Your task to perform on an android device: Show me popular videos on Youtube Image 0: 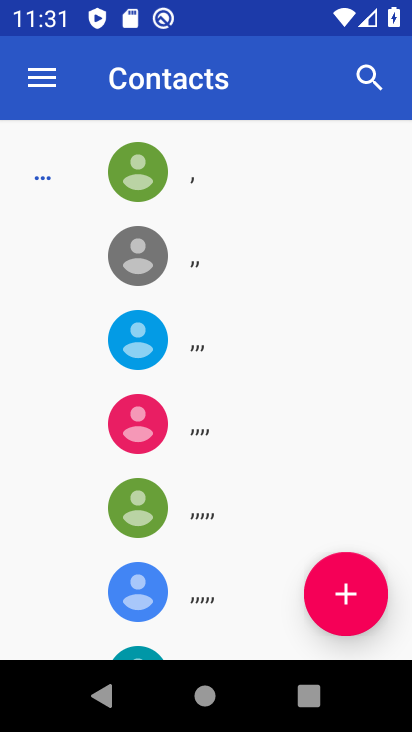
Step 0: press home button
Your task to perform on an android device: Show me popular videos on Youtube Image 1: 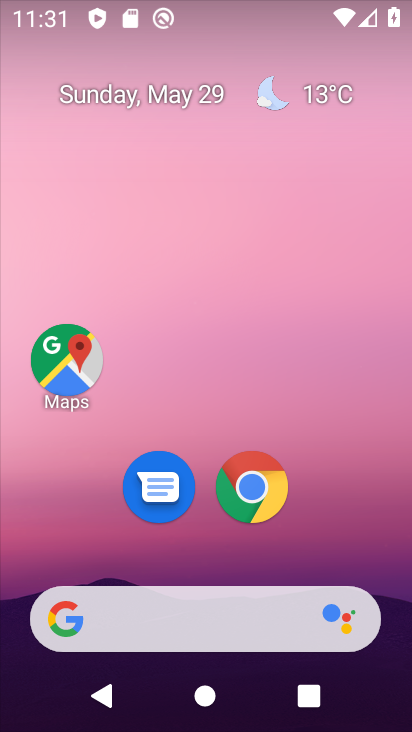
Step 1: drag from (343, 540) to (332, 126)
Your task to perform on an android device: Show me popular videos on Youtube Image 2: 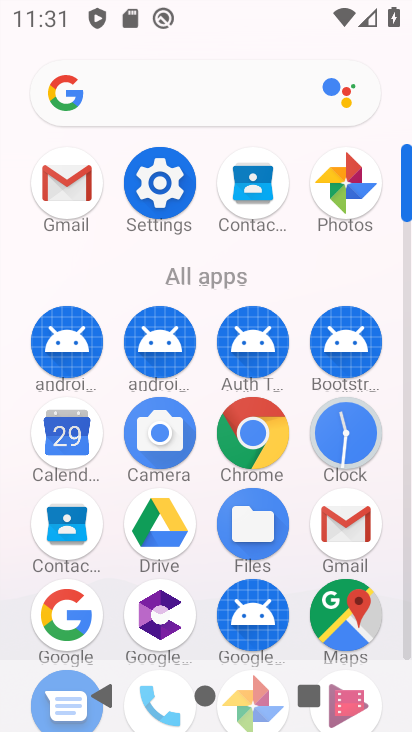
Step 2: drag from (274, 280) to (304, 101)
Your task to perform on an android device: Show me popular videos on Youtube Image 3: 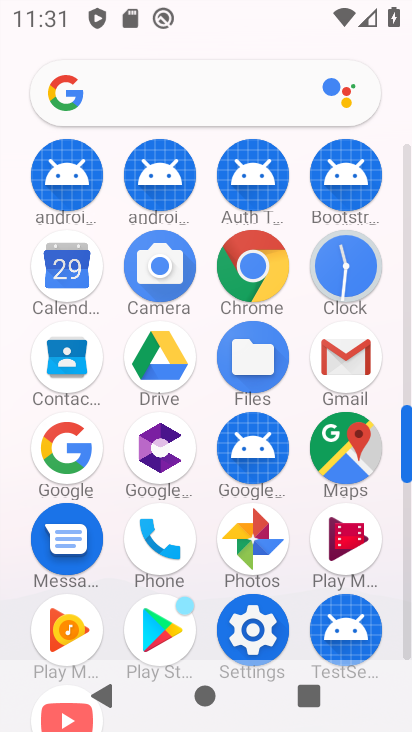
Step 3: drag from (204, 544) to (196, 400)
Your task to perform on an android device: Show me popular videos on Youtube Image 4: 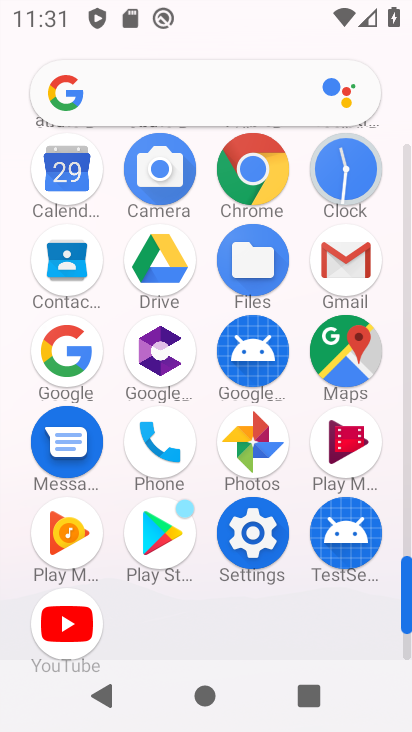
Step 4: click (57, 611)
Your task to perform on an android device: Show me popular videos on Youtube Image 5: 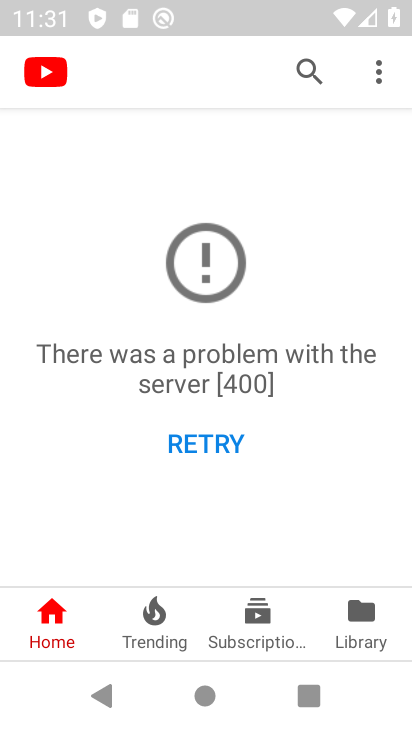
Step 5: click (142, 629)
Your task to perform on an android device: Show me popular videos on Youtube Image 6: 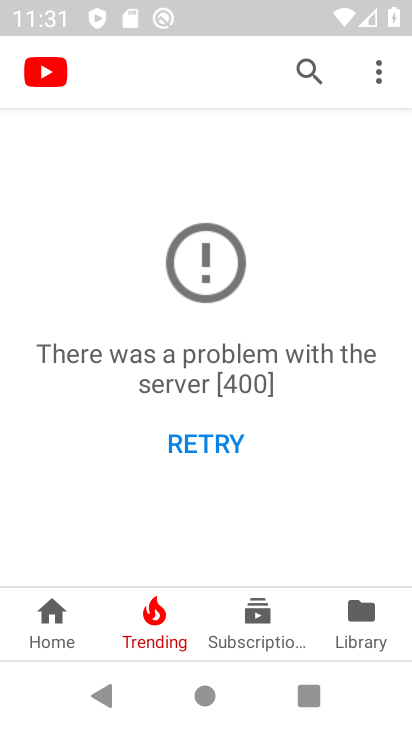
Step 6: task complete